Your task to perform on an android device: see sites visited before in the chrome app Image 0: 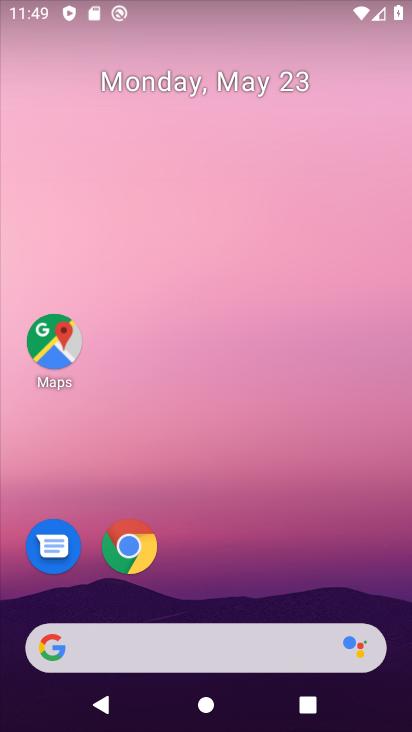
Step 0: drag from (252, 658) to (251, 1)
Your task to perform on an android device: see sites visited before in the chrome app Image 1: 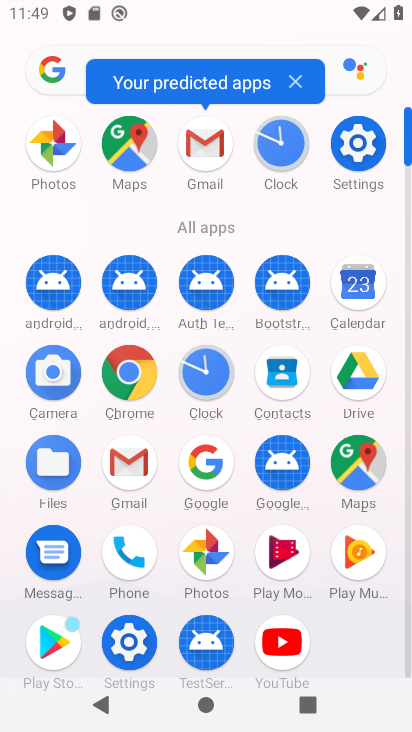
Step 1: click (135, 384)
Your task to perform on an android device: see sites visited before in the chrome app Image 2: 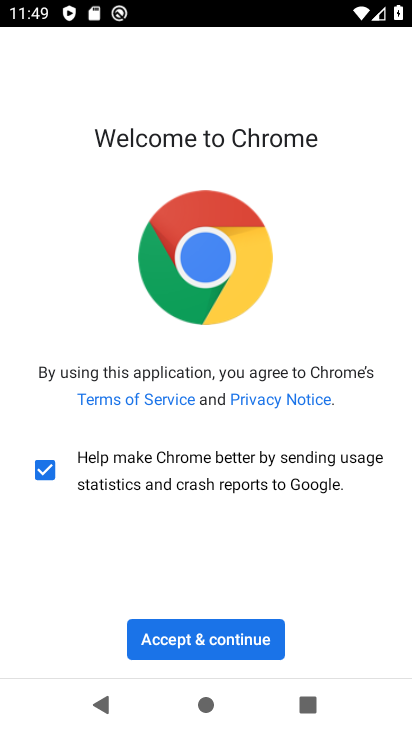
Step 2: click (245, 653)
Your task to perform on an android device: see sites visited before in the chrome app Image 3: 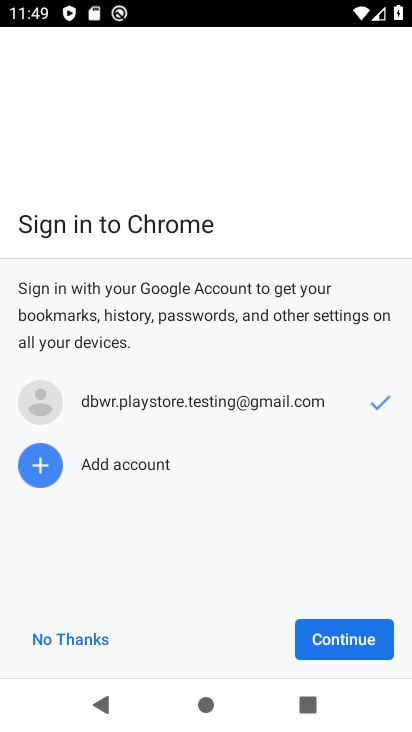
Step 3: click (81, 648)
Your task to perform on an android device: see sites visited before in the chrome app Image 4: 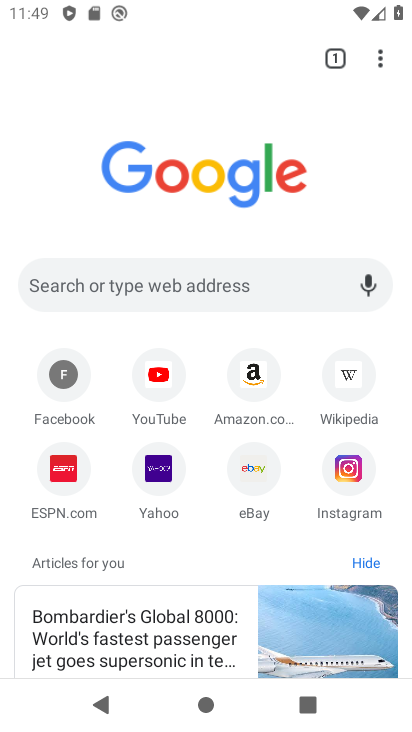
Step 4: click (379, 65)
Your task to perform on an android device: see sites visited before in the chrome app Image 5: 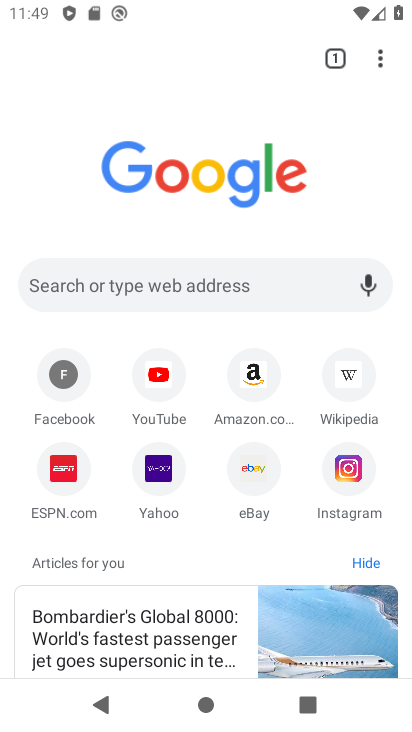
Step 5: task complete